Your task to perform on an android device: delete browsing data in the chrome app Image 0: 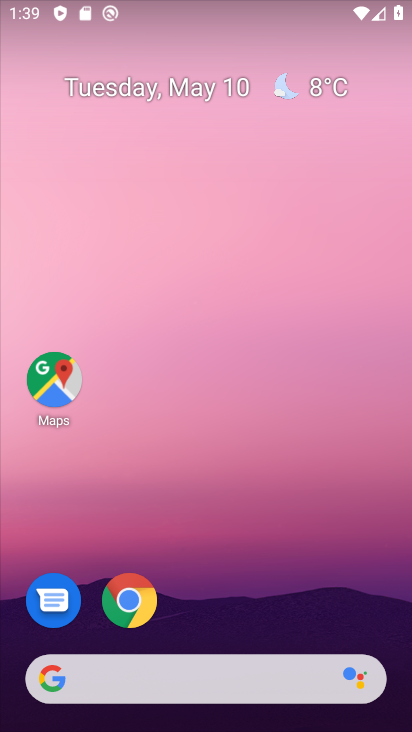
Step 0: click (130, 592)
Your task to perform on an android device: delete browsing data in the chrome app Image 1: 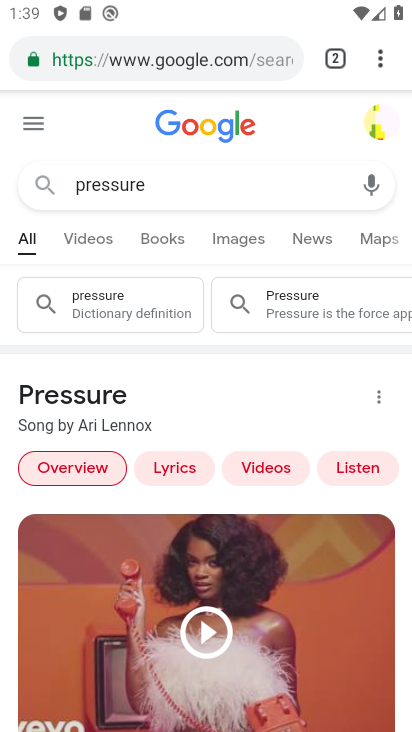
Step 1: click (383, 55)
Your task to perform on an android device: delete browsing data in the chrome app Image 2: 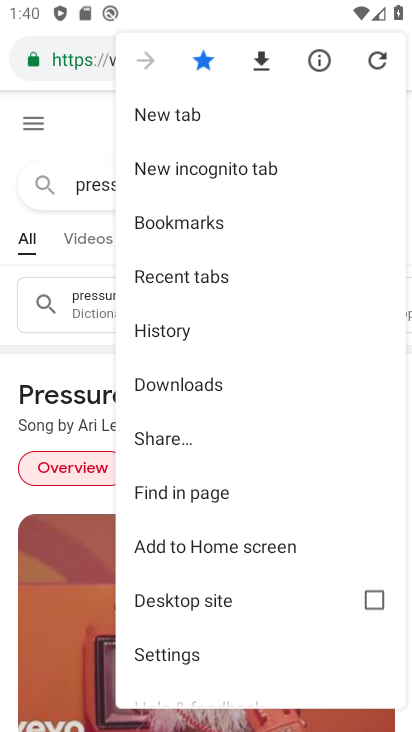
Step 2: click (199, 325)
Your task to perform on an android device: delete browsing data in the chrome app Image 3: 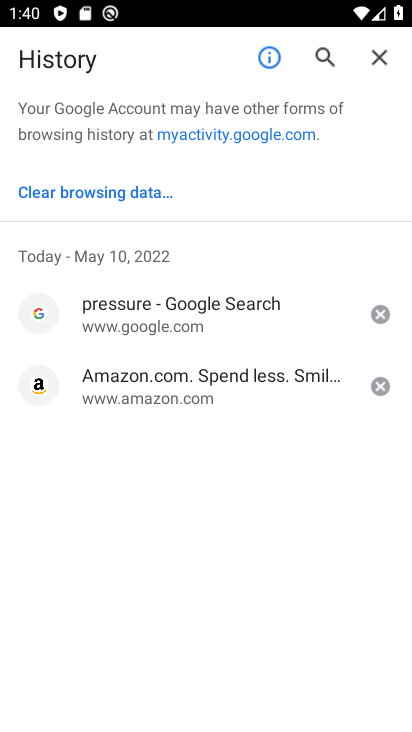
Step 3: click (119, 189)
Your task to perform on an android device: delete browsing data in the chrome app Image 4: 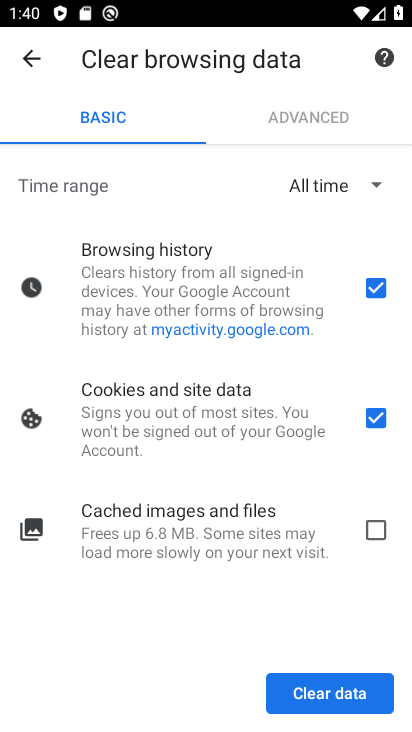
Step 4: click (379, 520)
Your task to perform on an android device: delete browsing data in the chrome app Image 5: 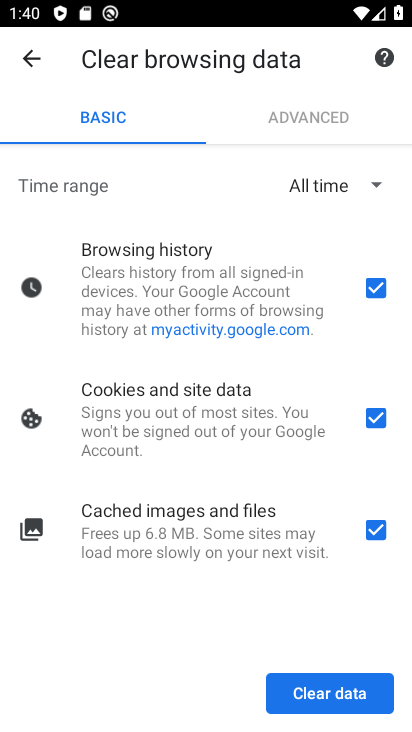
Step 5: click (311, 679)
Your task to perform on an android device: delete browsing data in the chrome app Image 6: 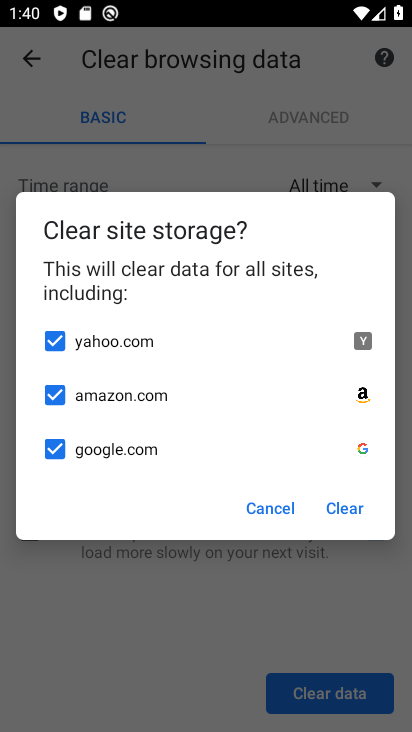
Step 6: click (340, 502)
Your task to perform on an android device: delete browsing data in the chrome app Image 7: 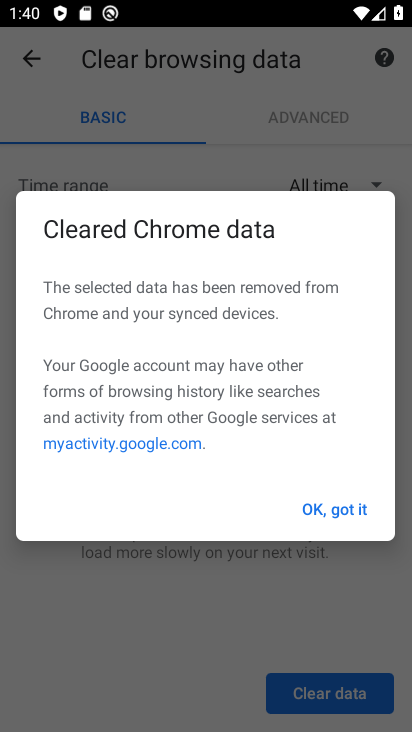
Step 7: click (337, 509)
Your task to perform on an android device: delete browsing data in the chrome app Image 8: 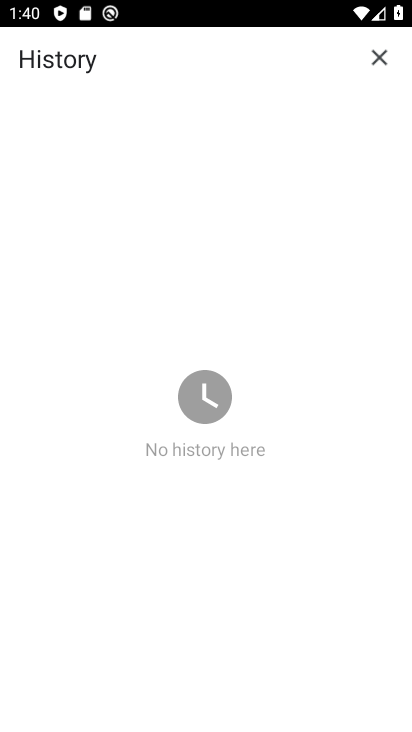
Step 8: task complete